Your task to perform on an android device: turn notification dots off Image 0: 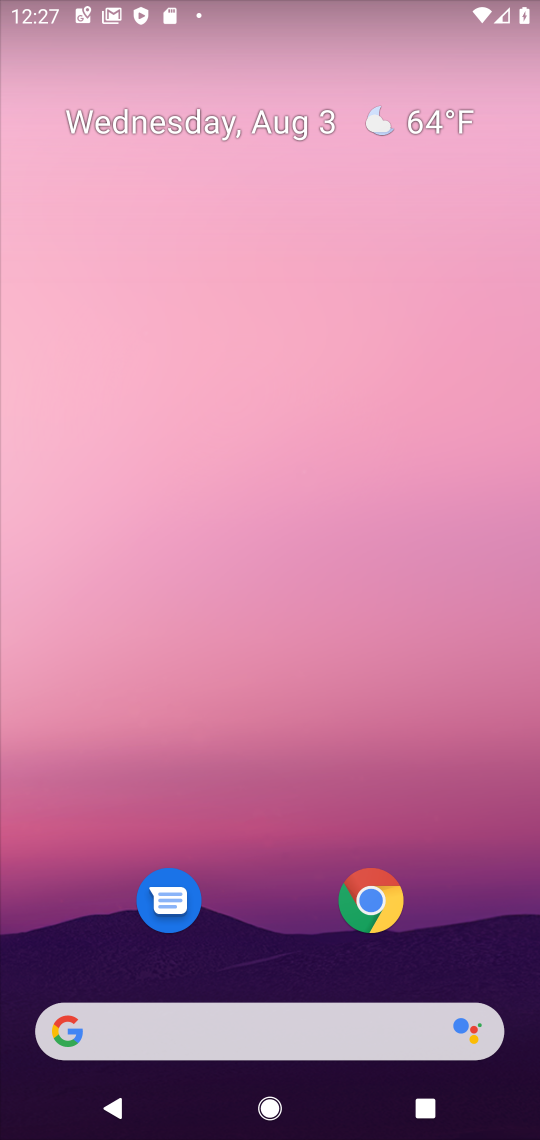
Step 0: drag from (264, 892) to (39, 537)
Your task to perform on an android device: turn notification dots off Image 1: 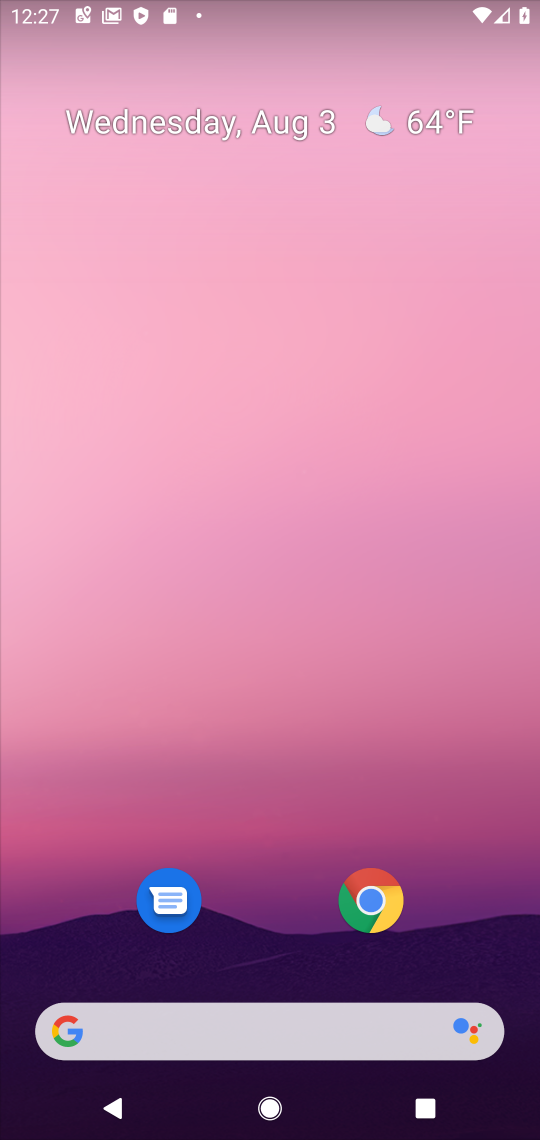
Step 1: drag from (269, 826) to (288, 52)
Your task to perform on an android device: turn notification dots off Image 2: 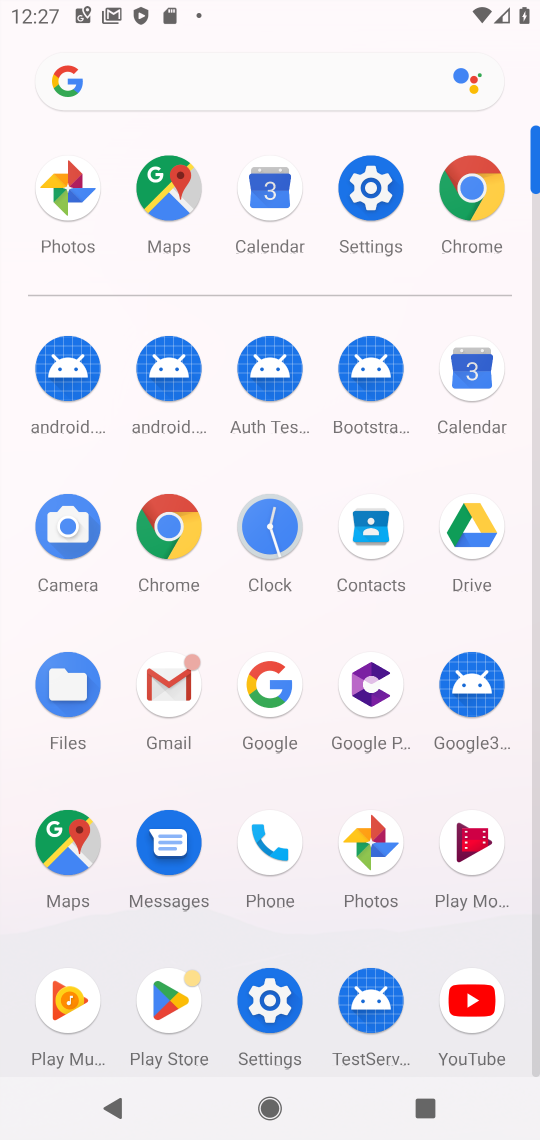
Step 2: click (254, 1004)
Your task to perform on an android device: turn notification dots off Image 3: 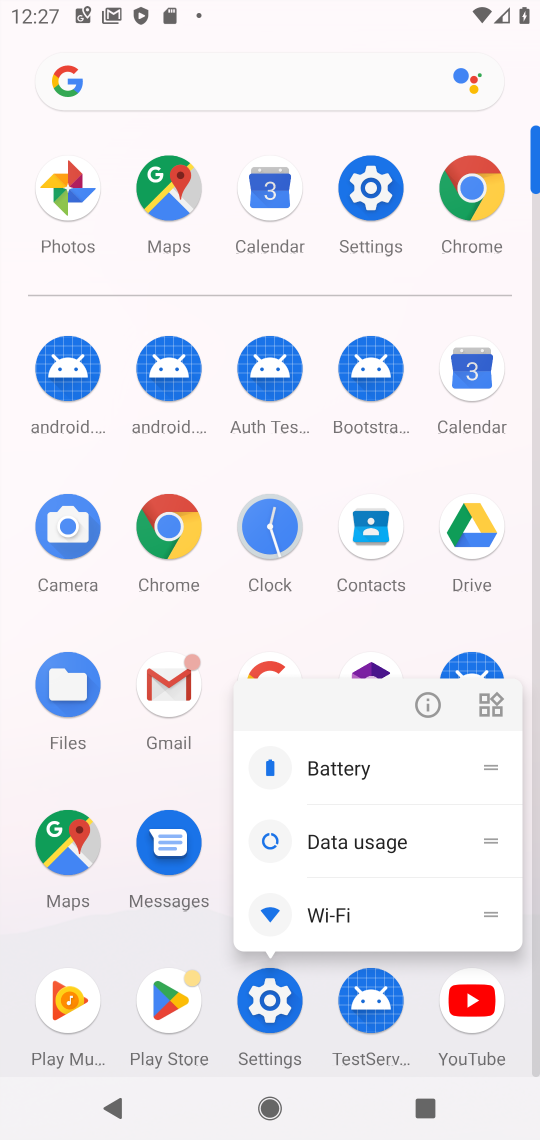
Step 3: click (268, 1008)
Your task to perform on an android device: turn notification dots off Image 4: 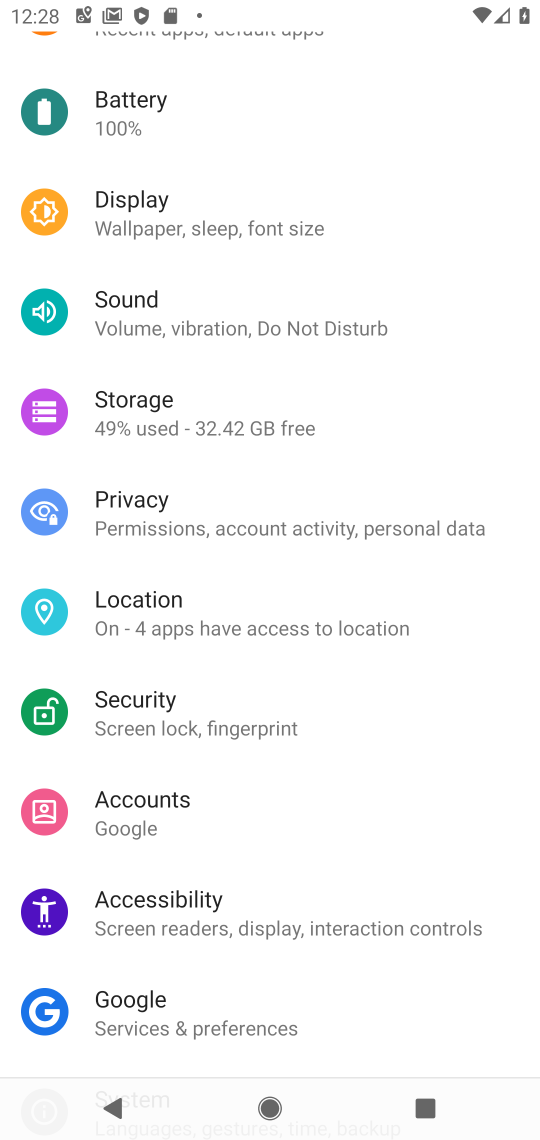
Step 4: drag from (325, 292) to (337, 964)
Your task to perform on an android device: turn notification dots off Image 5: 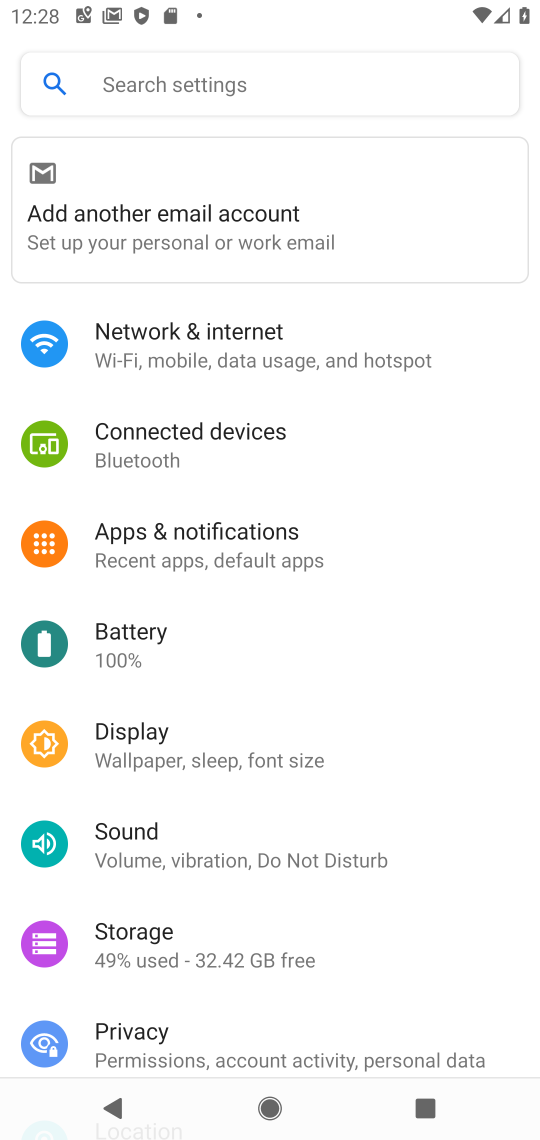
Step 5: click (265, 540)
Your task to perform on an android device: turn notification dots off Image 6: 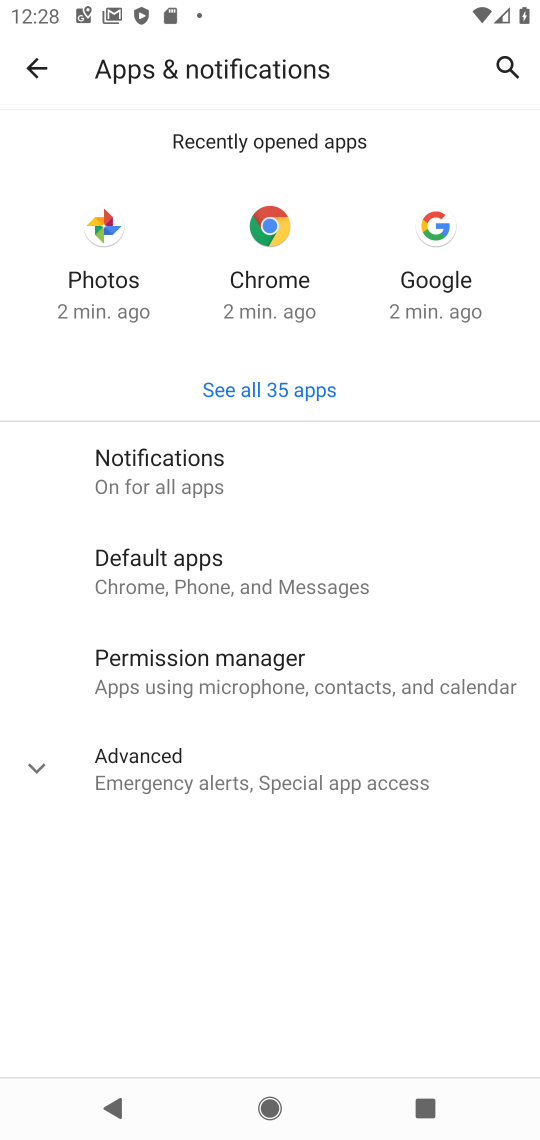
Step 6: click (165, 468)
Your task to perform on an android device: turn notification dots off Image 7: 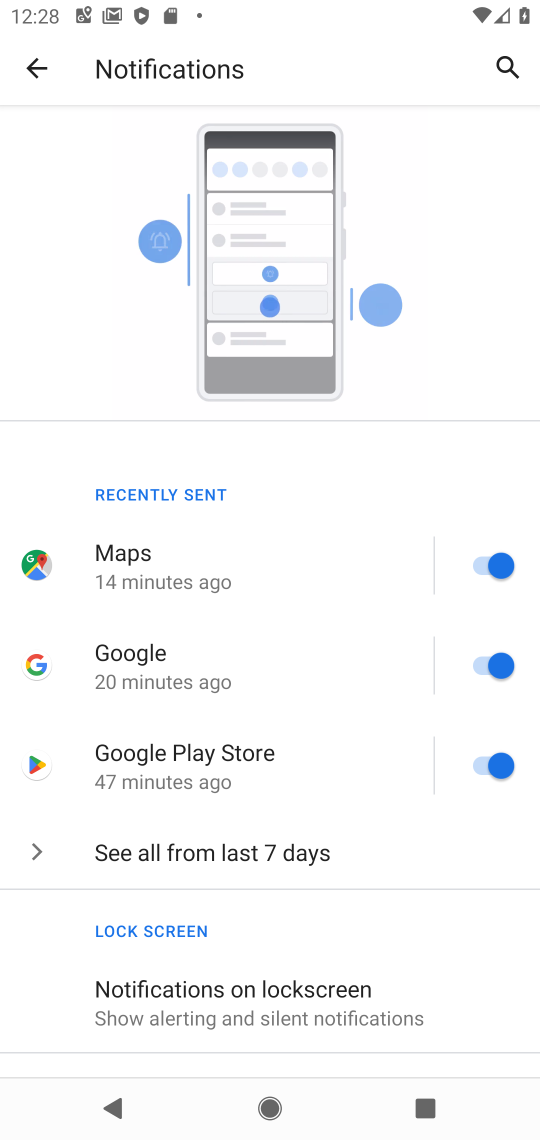
Step 7: drag from (246, 958) to (250, 365)
Your task to perform on an android device: turn notification dots off Image 8: 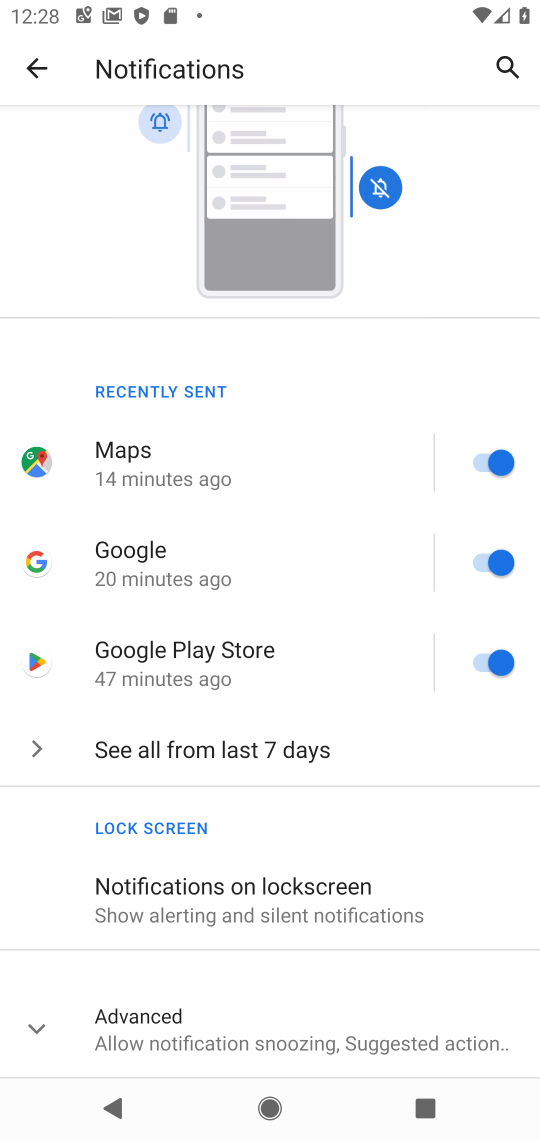
Step 8: click (152, 1046)
Your task to perform on an android device: turn notification dots off Image 9: 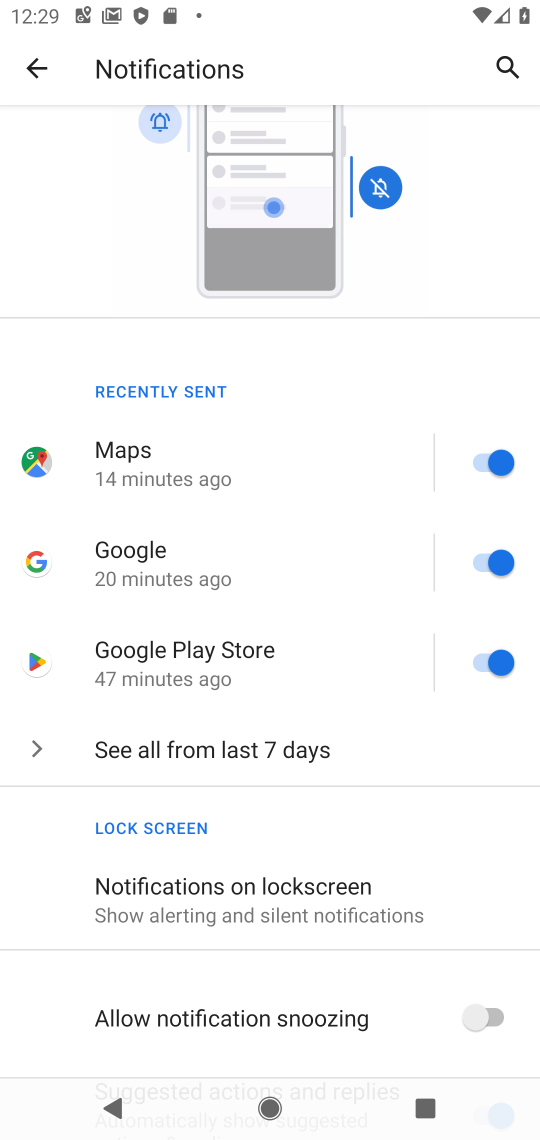
Step 9: drag from (239, 983) to (284, 332)
Your task to perform on an android device: turn notification dots off Image 10: 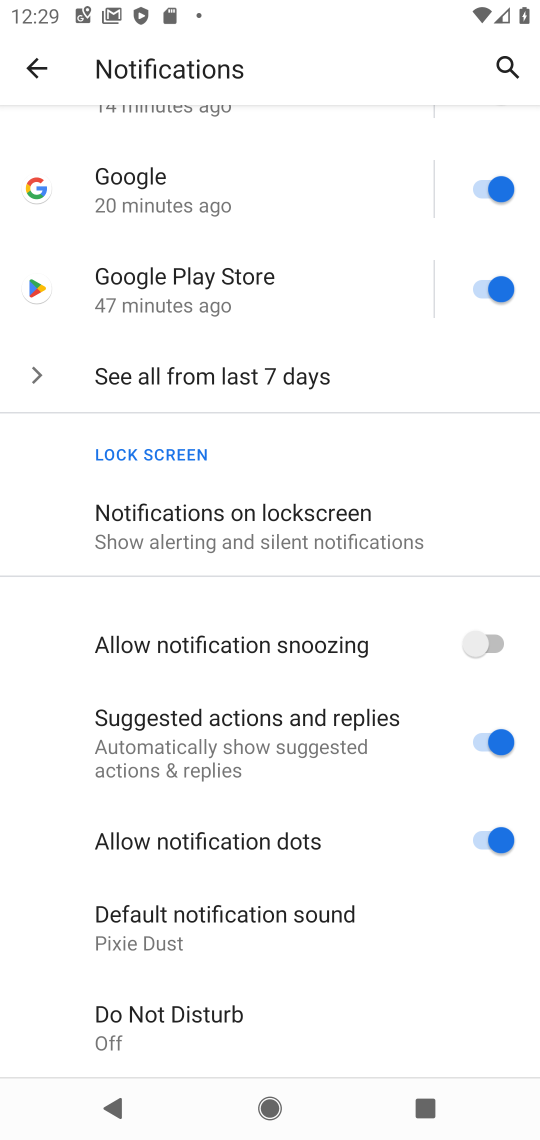
Step 10: click (493, 848)
Your task to perform on an android device: turn notification dots off Image 11: 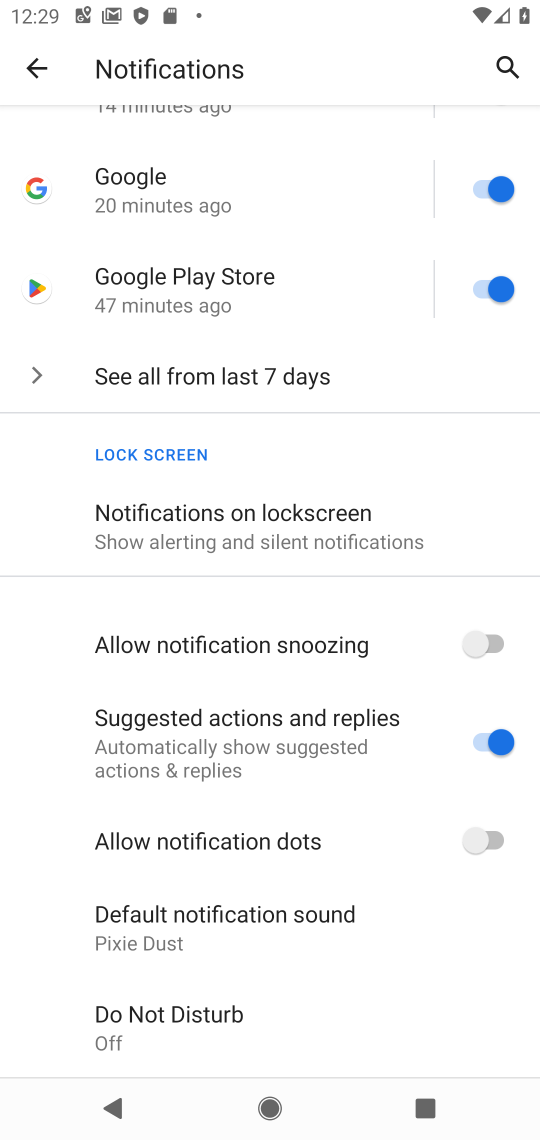
Step 11: task complete